Your task to perform on an android device: Go to ESPN.com Image 0: 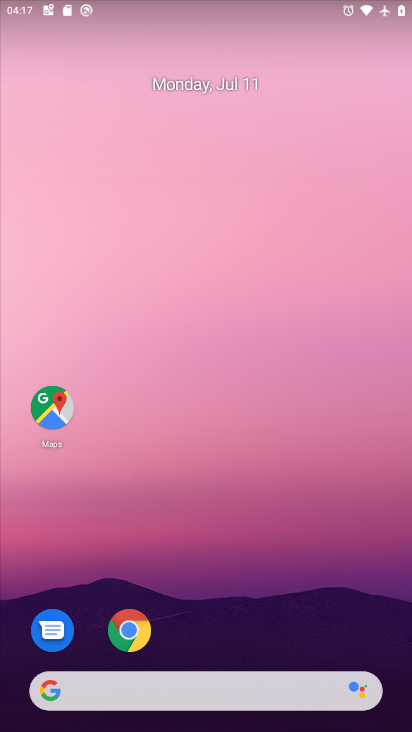
Step 0: drag from (221, 630) to (225, 55)
Your task to perform on an android device: Go to ESPN.com Image 1: 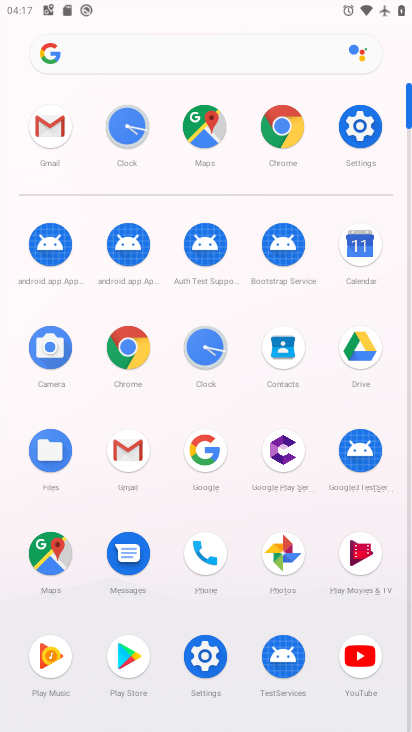
Step 1: click (274, 149)
Your task to perform on an android device: Go to ESPN.com Image 2: 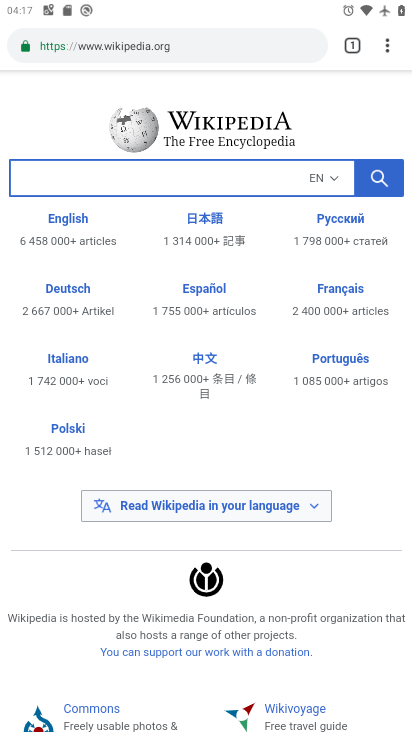
Step 2: click (209, 53)
Your task to perform on an android device: Go to ESPN.com Image 3: 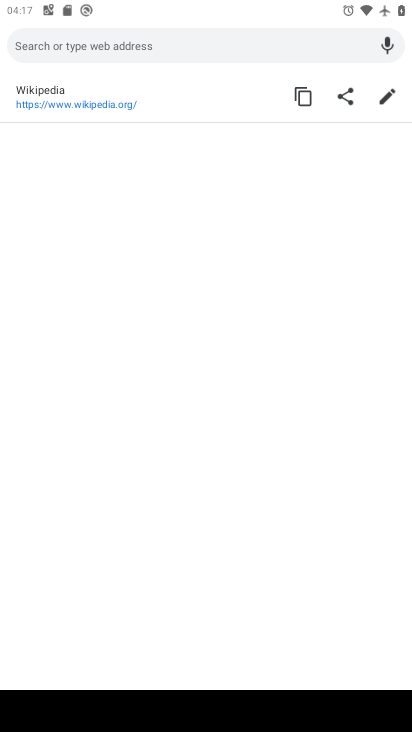
Step 3: type "espn.com"
Your task to perform on an android device: Go to ESPN.com Image 4: 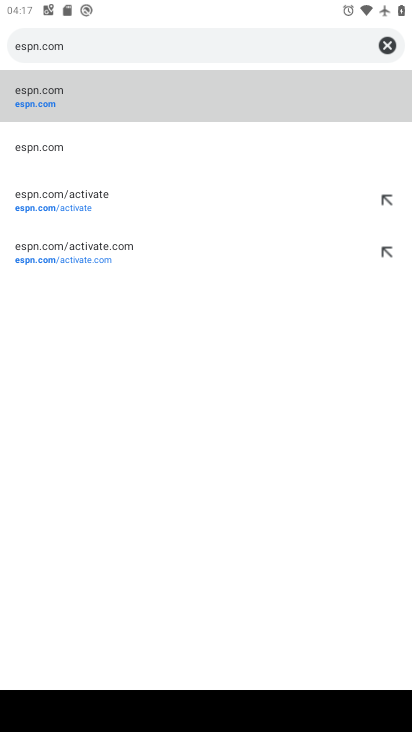
Step 4: click (104, 156)
Your task to perform on an android device: Go to ESPN.com Image 5: 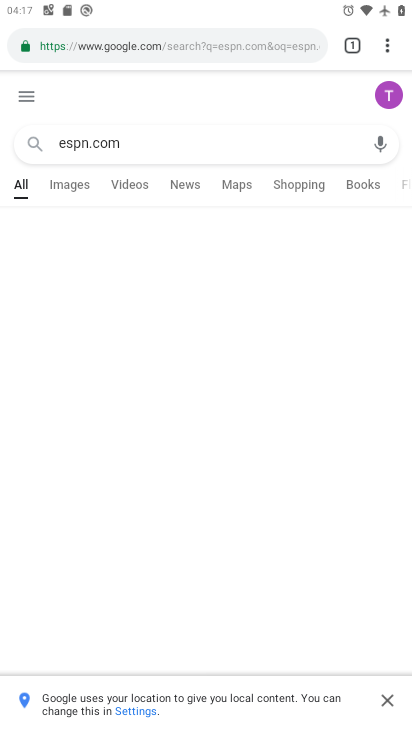
Step 5: task complete